Your task to perform on an android device: Go to eBay Image 0: 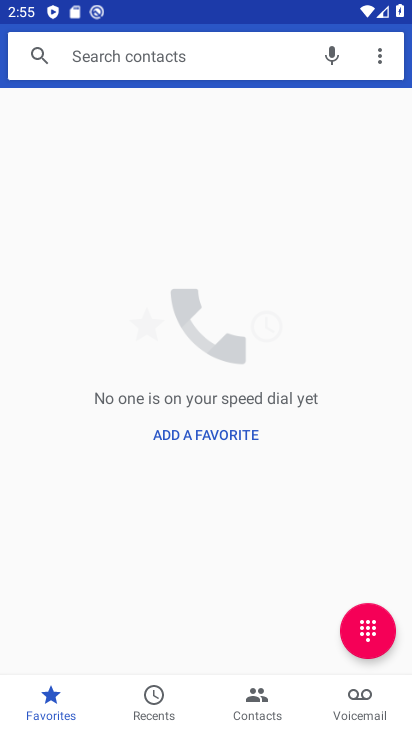
Step 0: press home button
Your task to perform on an android device: Go to eBay Image 1: 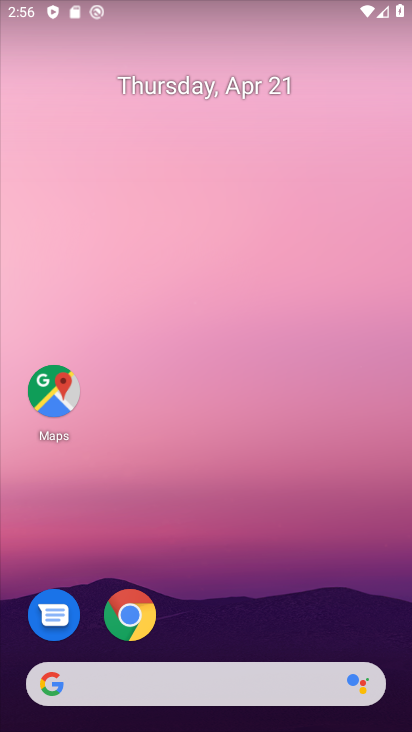
Step 1: drag from (364, 587) to (311, 133)
Your task to perform on an android device: Go to eBay Image 2: 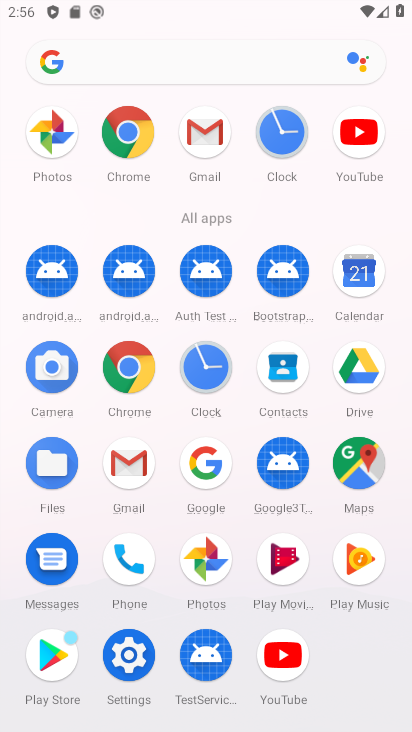
Step 2: click (121, 380)
Your task to perform on an android device: Go to eBay Image 3: 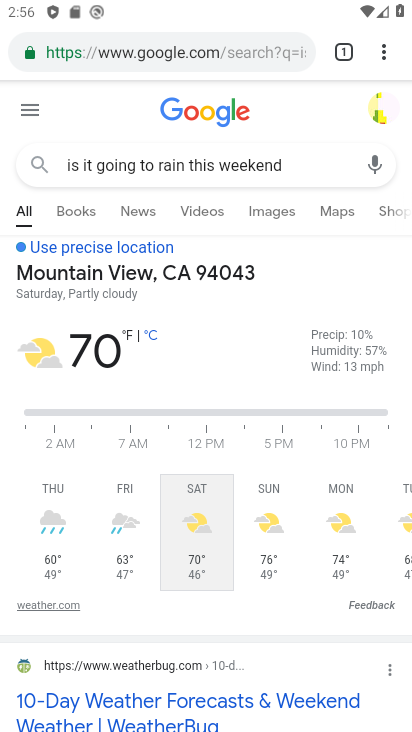
Step 3: click (302, 168)
Your task to perform on an android device: Go to eBay Image 4: 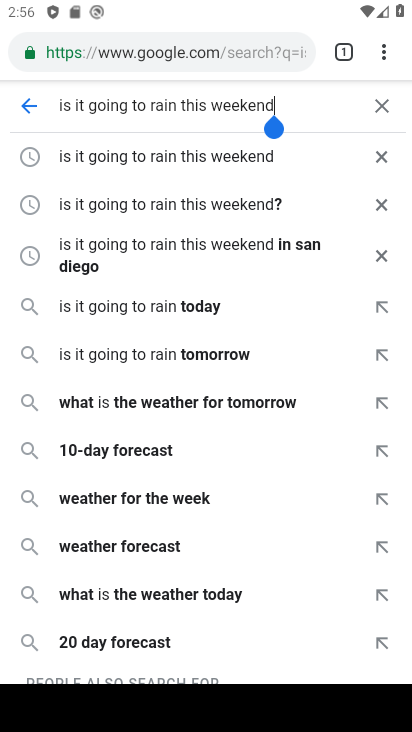
Step 4: click (376, 105)
Your task to perform on an android device: Go to eBay Image 5: 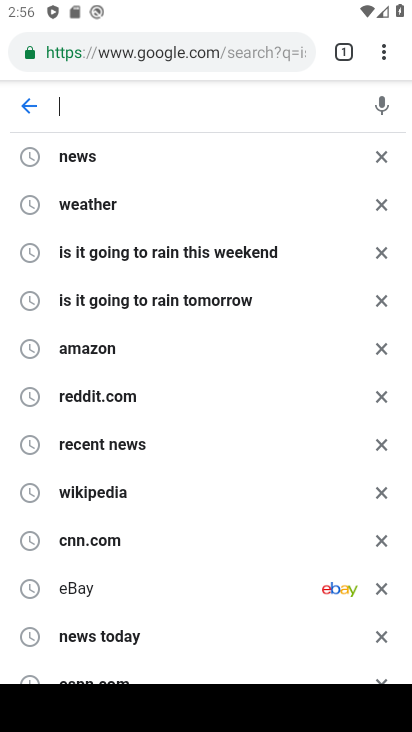
Step 5: type "ebay"
Your task to perform on an android device: Go to eBay Image 6: 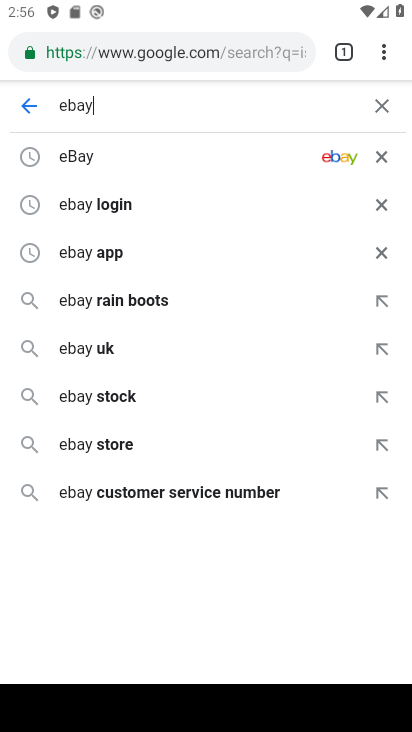
Step 6: click (85, 152)
Your task to perform on an android device: Go to eBay Image 7: 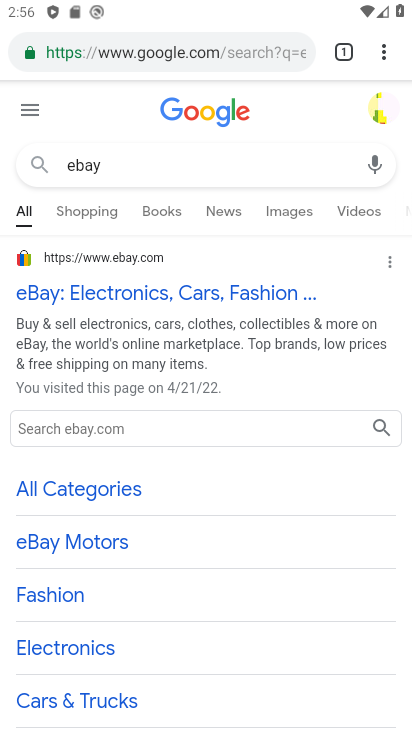
Step 7: click (167, 292)
Your task to perform on an android device: Go to eBay Image 8: 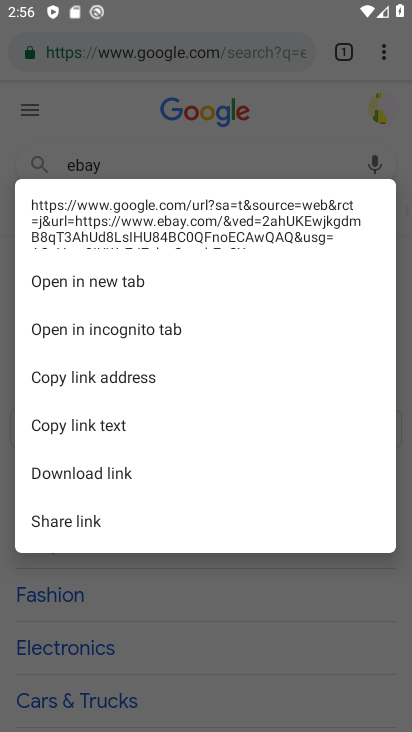
Step 8: click (128, 145)
Your task to perform on an android device: Go to eBay Image 9: 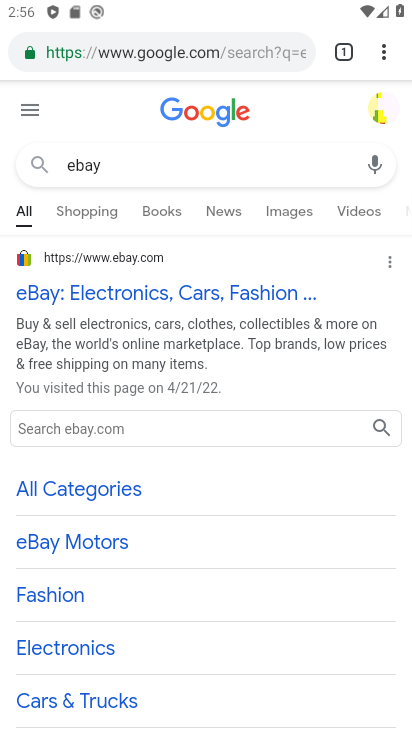
Step 9: click (157, 293)
Your task to perform on an android device: Go to eBay Image 10: 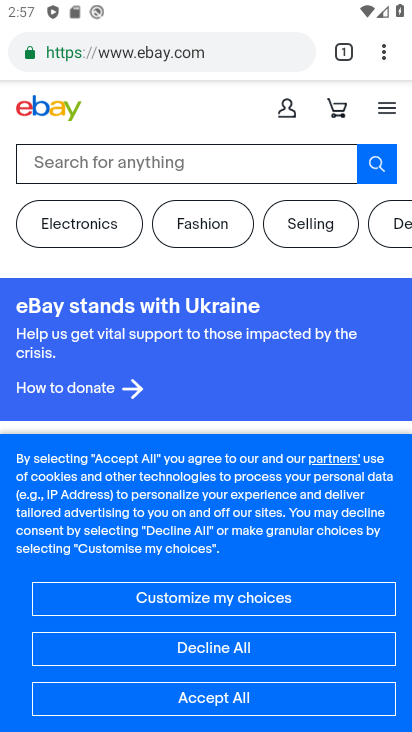
Step 10: task complete